Your task to perform on an android device: clear history in the chrome app Image 0: 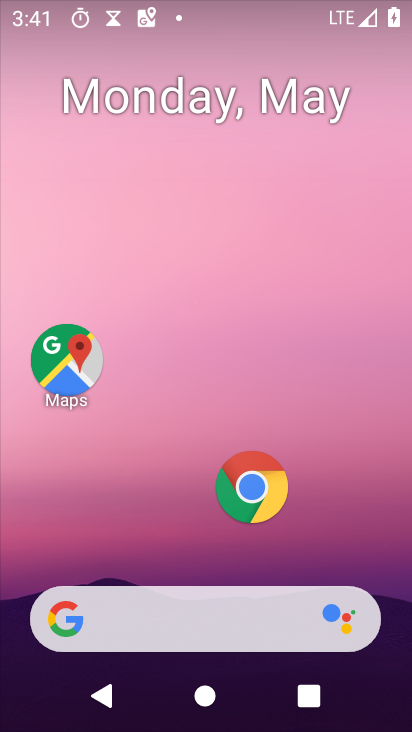
Step 0: click (252, 494)
Your task to perform on an android device: clear history in the chrome app Image 1: 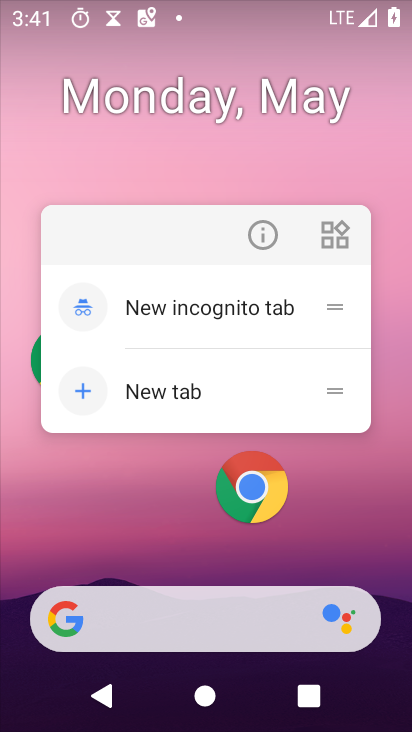
Step 1: click (252, 494)
Your task to perform on an android device: clear history in the chrome app Image 2: 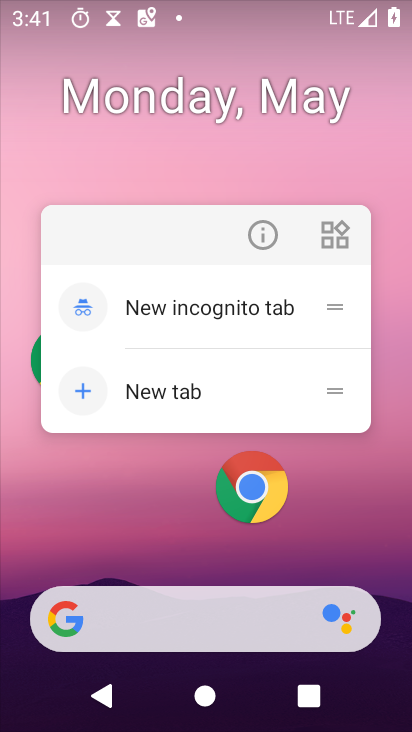
Step 2: click (255, 493)
Your task to perform on an android device: clear history in the chrome app Image 3: 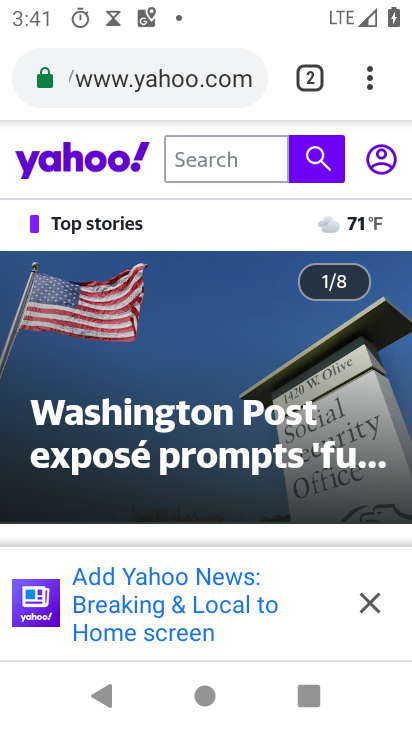
Step 3: click (377, 84)
Your task to perform on an android device: clear history in the chrome app Image 4: 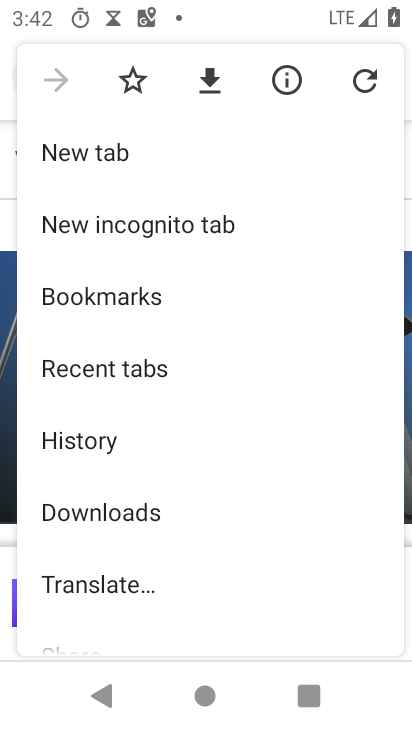
Step 4: click (71, 432)
Your task to perform on an android device: clear history in the chrome app Image 5: 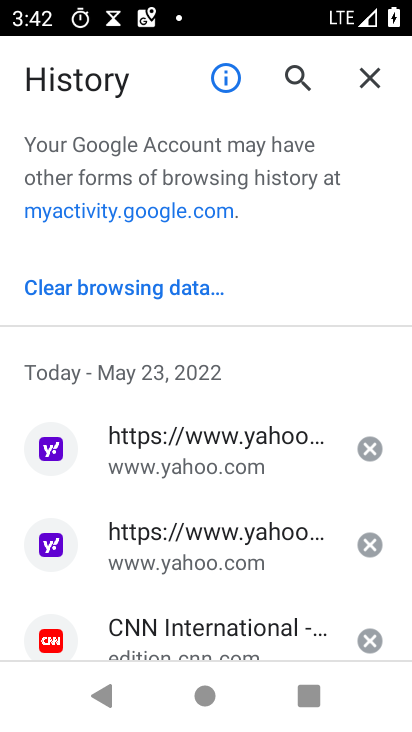
Step 5: click (115, 301)
Your task to perform on an android device: clear history in the chrome app Image 6: 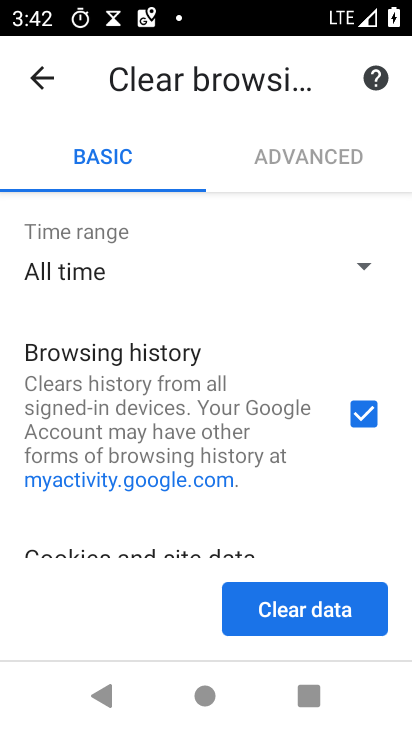
Step 6: click (258, 601)
Your task to perform on an android device: clear history in the chrome app Image 7: 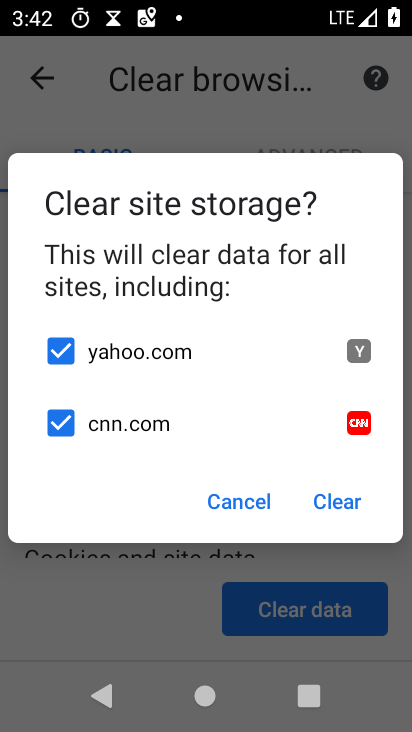
Step 7: click (321, 501)
Your task to perform on an android device: clear history in the chrome app Image 8: 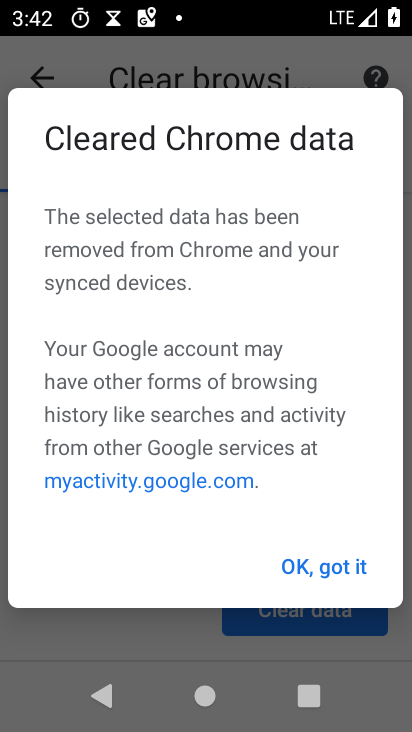
Step 8: click (318, 550)
Your task to perform on an android device: clear history in the chrome app Image 9: 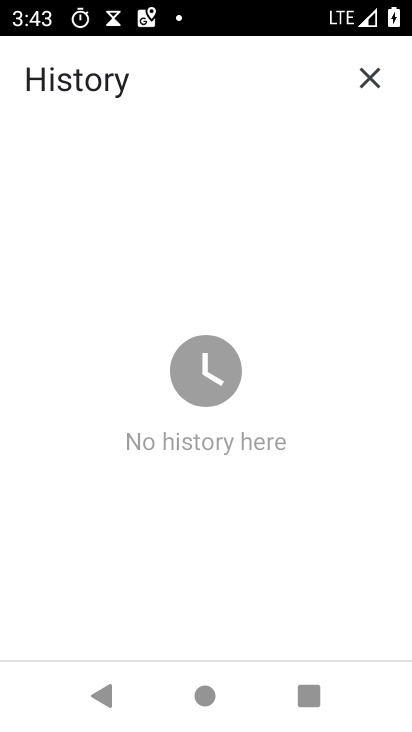
Step 9: task complete